Your task to perform on an android device: Go to Maps Image 0: 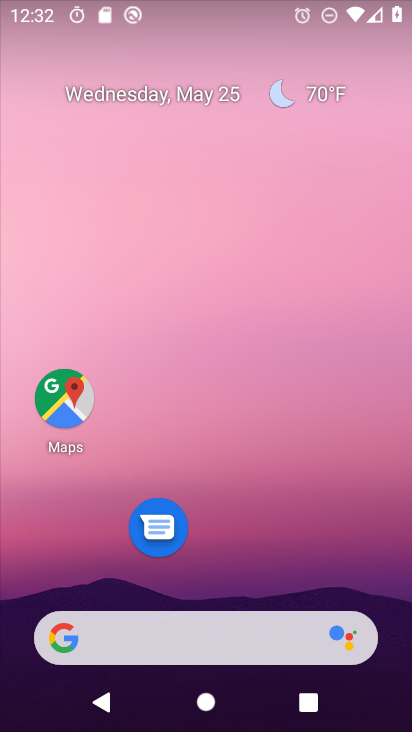
Step 0: click (66, 398)
Your task to perform on an android device: Go to Maps Image 1: 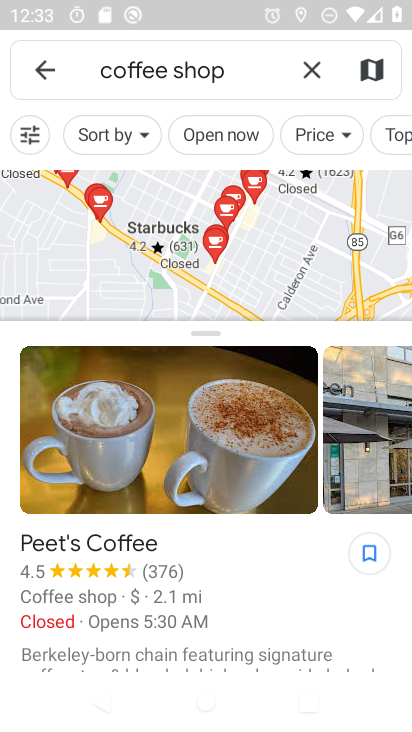
Step 1: task complete